Your task to perform on an android device: Open calendar and show me the second week of next month Image 0: 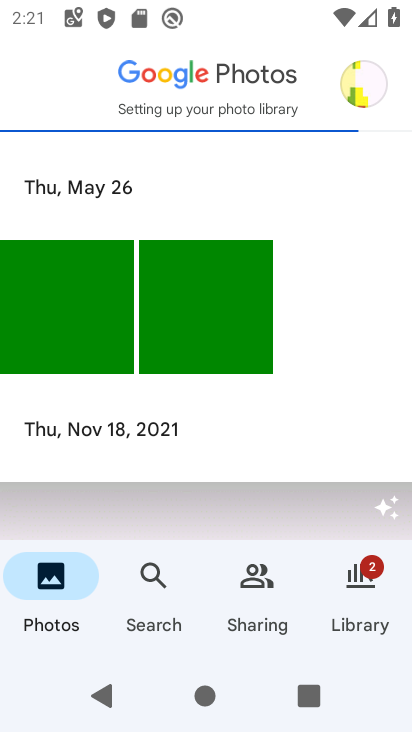
Step 0: press home button
Your task to perform on an android device: Open calendar and show me the second week of next month Image 1: 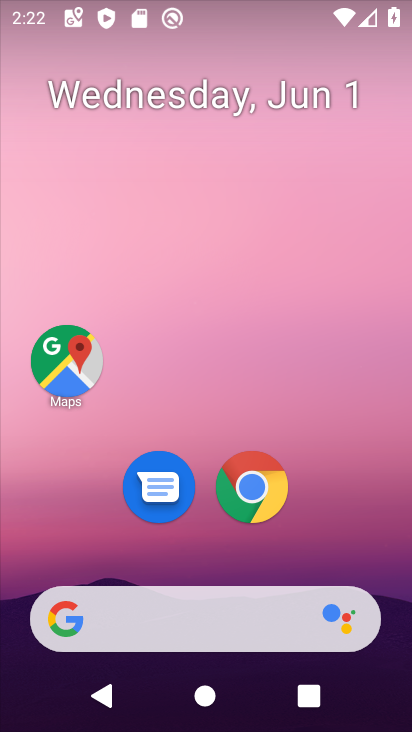
Step 1: drag from (382, 555) to (359, 235)
Your task to perform on an android device: Open calendar and show me the second week of next month Image 2: 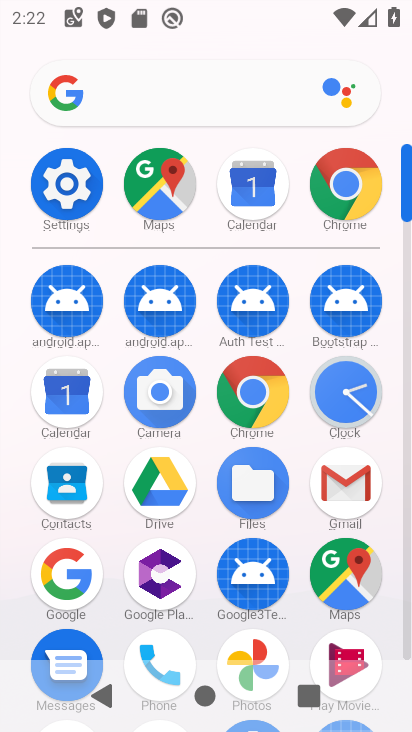
Step 2: click (82, 395)
Your task to perform on an android device: Open calendar and show me the second week of next month Image 3: 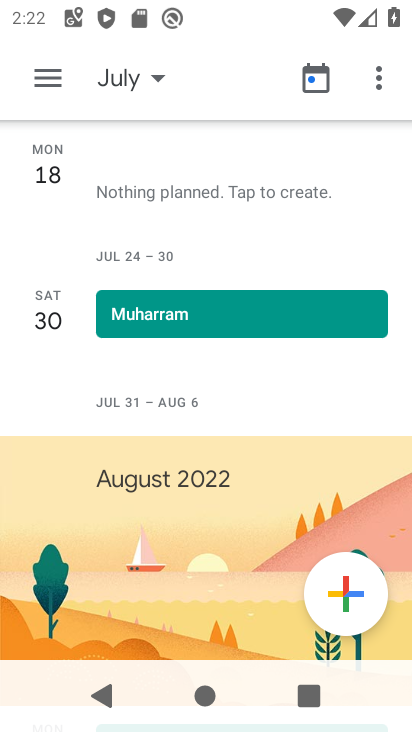
Step 3: click (162, 75)
Your task to perform on an android device: Open calendar and show me the second week of next month Image 4: 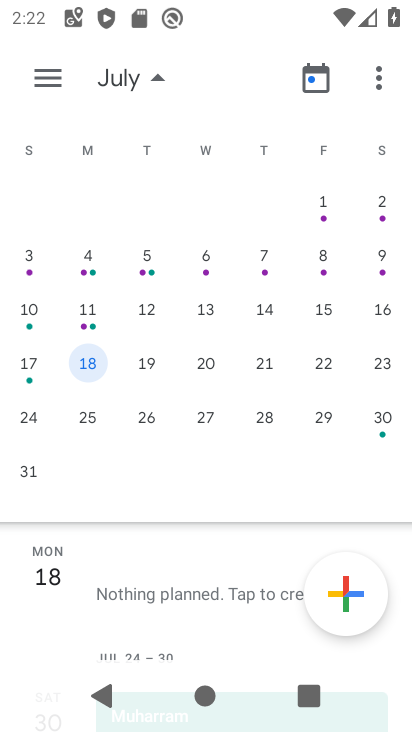
Step 4: click (82, 262)
Your task to perform on an android device: Open calendar and show me the second week of next month Image 5: 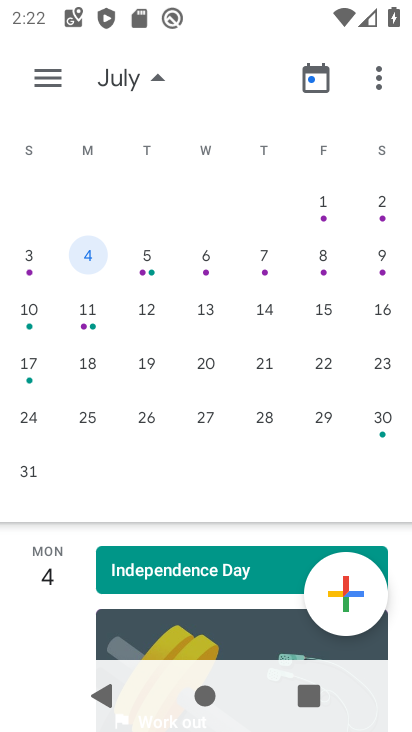
Step 5: task complete